Your task to perform on an android device: turn on location history Image 0: 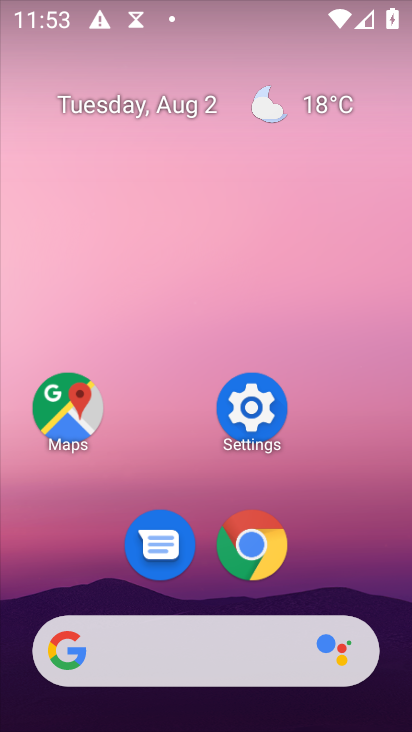
Step 0: click (71, 418)
Your task to perform on an android device: turn on location history Image 1: 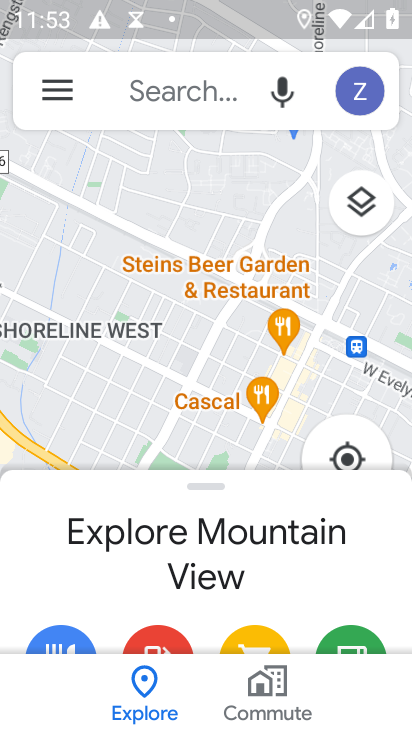
Step 1: click (46, 87)
Your task to perform on an android device: turn on location history Image 2: 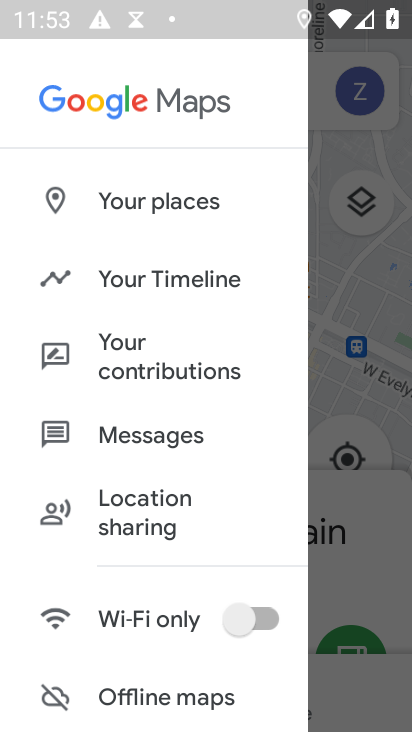
Step 2: click (143, 281)
Your task to perform on an android device: turn on location history Image 3: 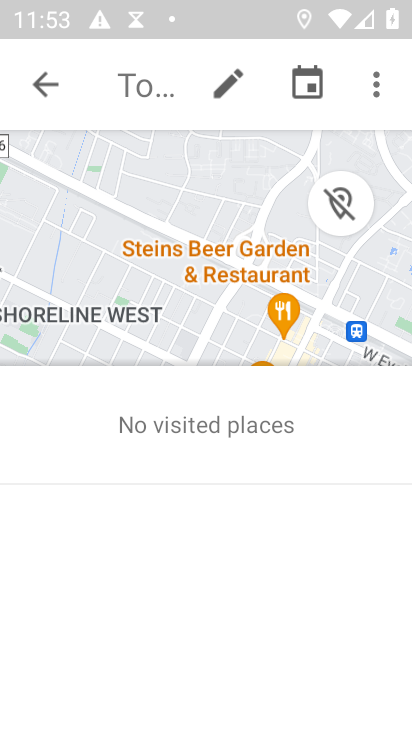
Step 3: click (378, 86)
Your task to perform on an android device: turn on location history Image 4: 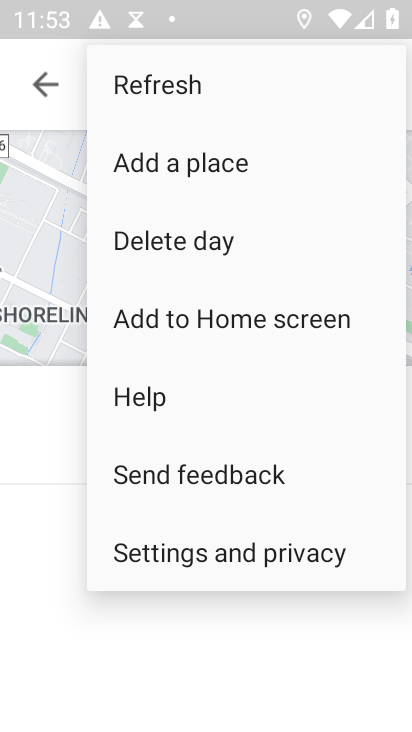
Step 4: click (177, 558)
Your task to perform on an android device: turn on location history Image 5: 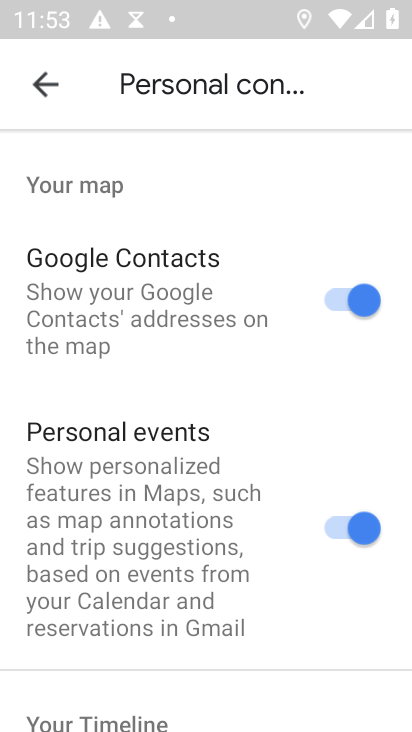
Step 5: drag from (170, 654) to (275, 180)
Your task to perform on an android device: turn on location history Image 6: 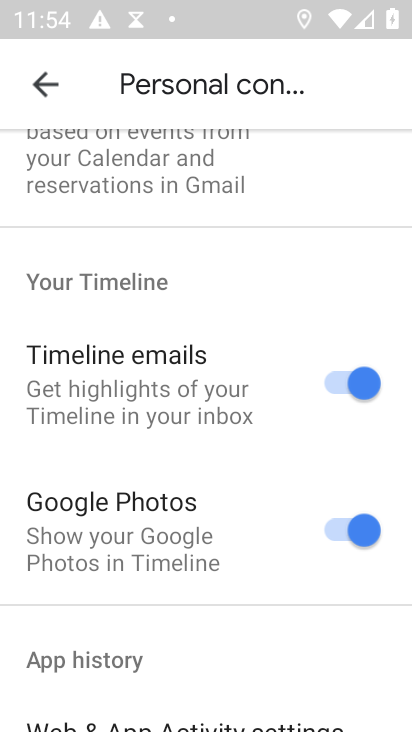
Step 6: drag from (221, 649) to (335, 171)
Your task to perform on an android device: turn on location history Image 7: 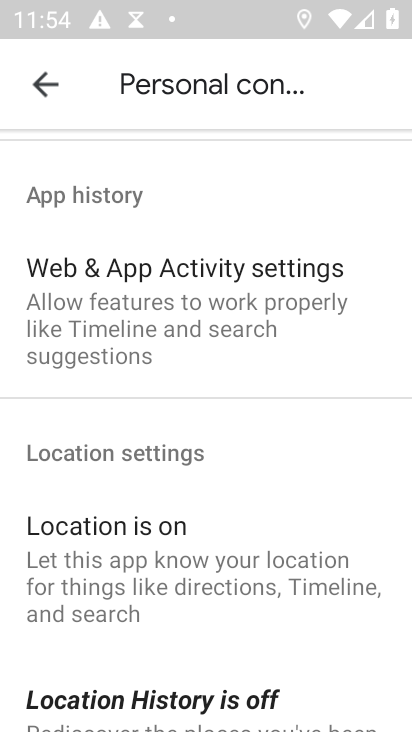
Step 7: drag from (215, 613) to (267, 177)
Your task to perform on an android device: turn on location history Image 8: 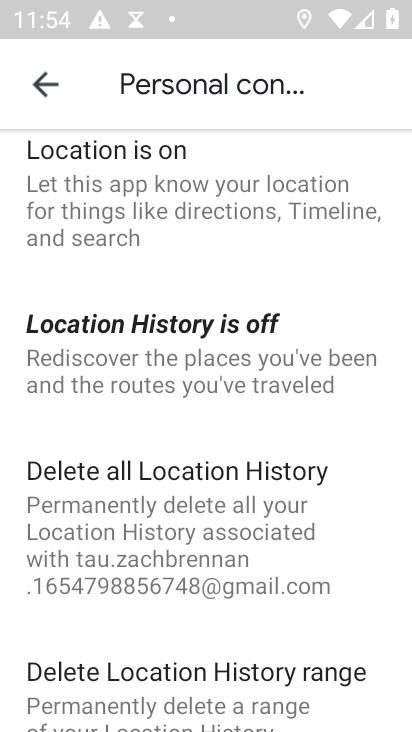
Step 8: click (158, 362)
Your task to perform on an android device: turn on location history Image 9: 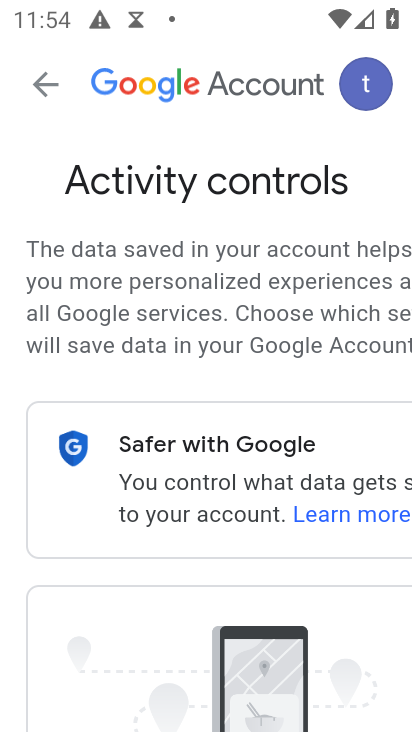
Step 9: task complete